Your task to perform on an android device: turn on the 12-hour format for clock Image 0: 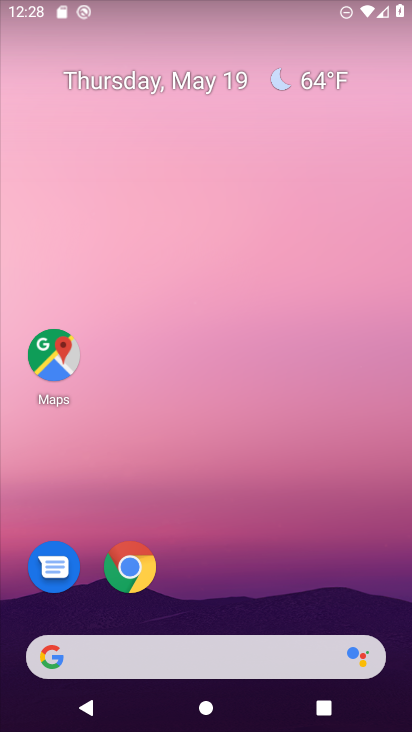
Step 0: drag from (257, 554) to (253, 84)
Your task to perform on an android device: turn on the 12-hour format for clock Image 1: 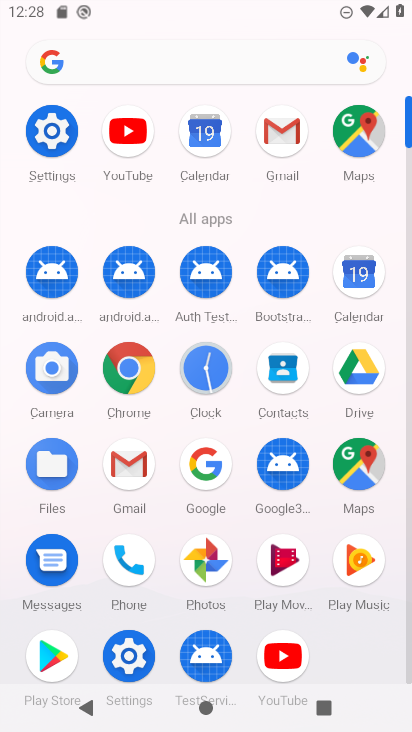
Step 1: click (205, 367)
Your task to perform on an android device: turn on the 12-hour format for clock Image 2: 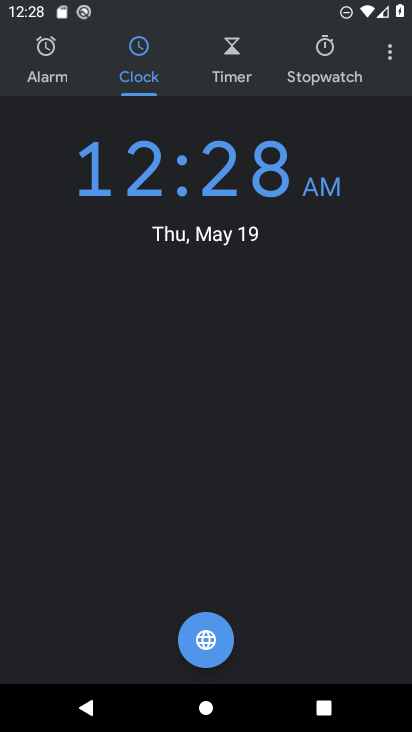
Step 2: click (391, 64)
Your task to perform on an android device: turn on the 12-hour format for clock Image 3: 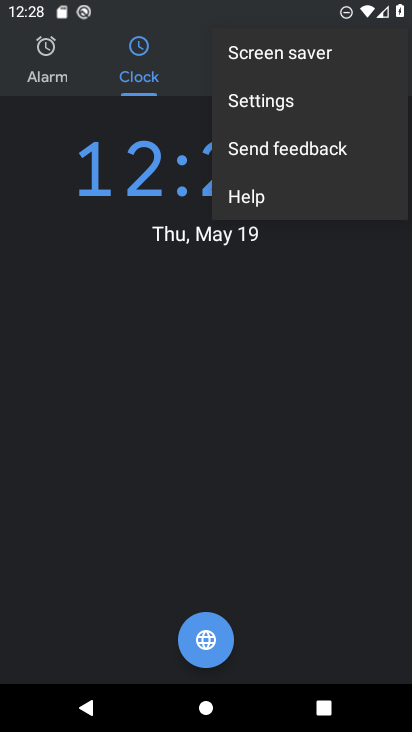
Step 3: click (297, 112)
Your task to perform on an android device: turn on the 12-hour format for clock Image 4: 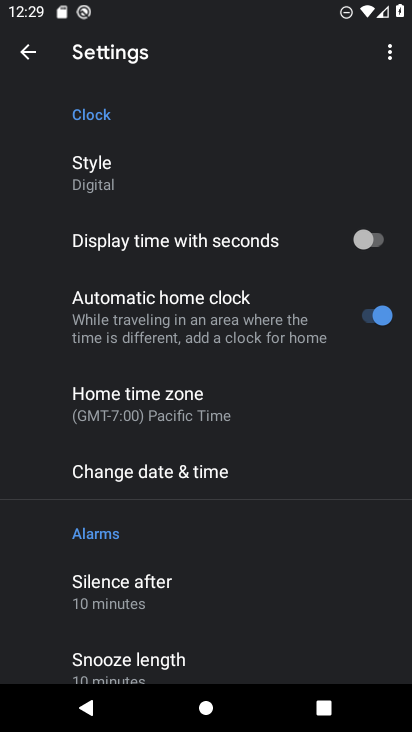
Step 4: click (174, 465)
Your task to perform on an android device: turn on the 12-hour format for clock Image 5: 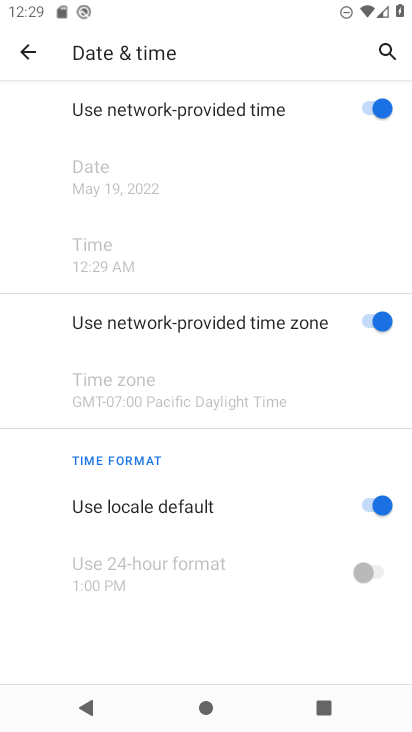
Step 5: task complete